Your task to perform on an android device: check android version Image 0: 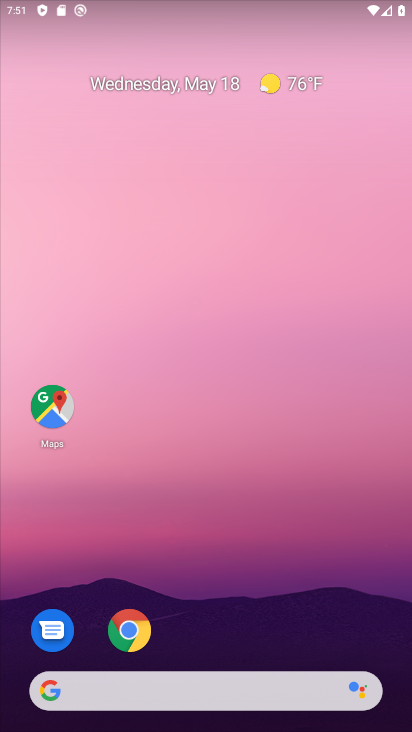
Step 0: drag from (152, 729) to (200, 56)
Your task to perform on an android device: check android version Image 1: 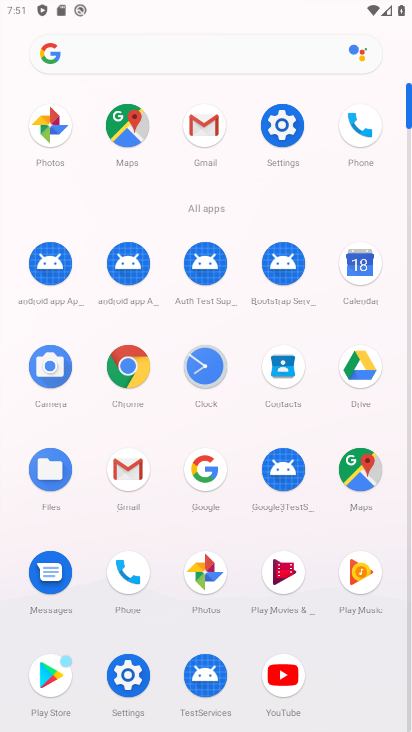
Step 1: drag from (394, 657) to (363, 181)
Your task to perform on an android device: check android version Image 2: 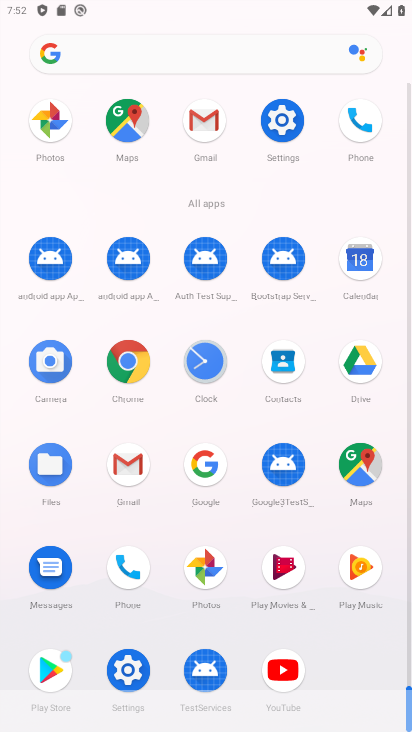
Step 2: click (281, 124)
Your task to perform on an android device: check android version Image 3: 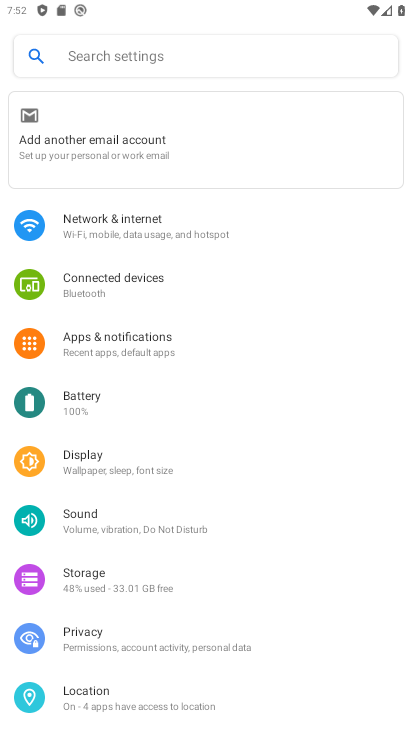
Step 3: drag from (155, 687) to (224, 38)
Your task to perform on an android device: check android version Image 4: 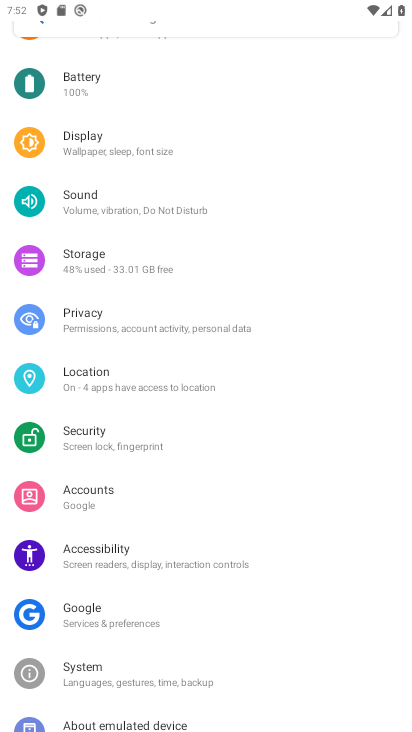
Step 4: drag from (197, 698) to (315, 86)
Your task to perform on an android device: check android version Image 5: 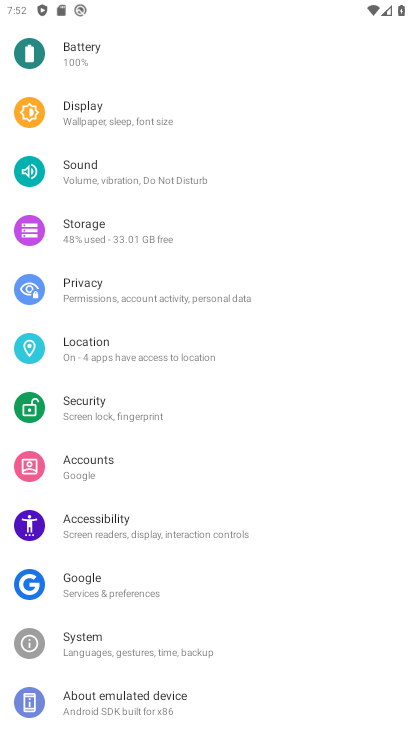
Step 5: click (154, 699)
Your task to perform on an android device: check android version Image 6: 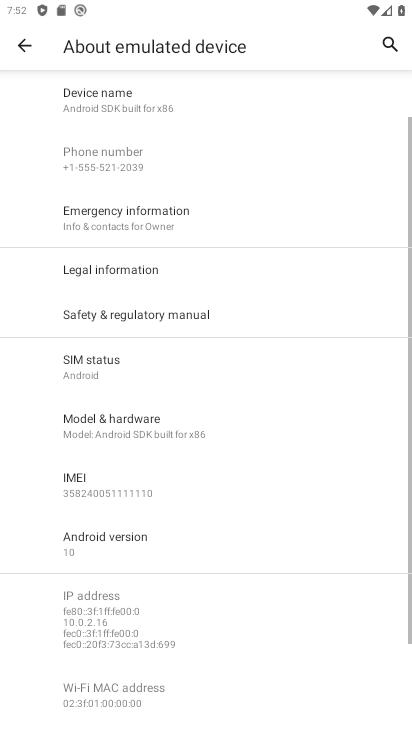
Step 6: task complete